Your task to perform on an android device: Search for custom wallets on Etsy. Image 0: 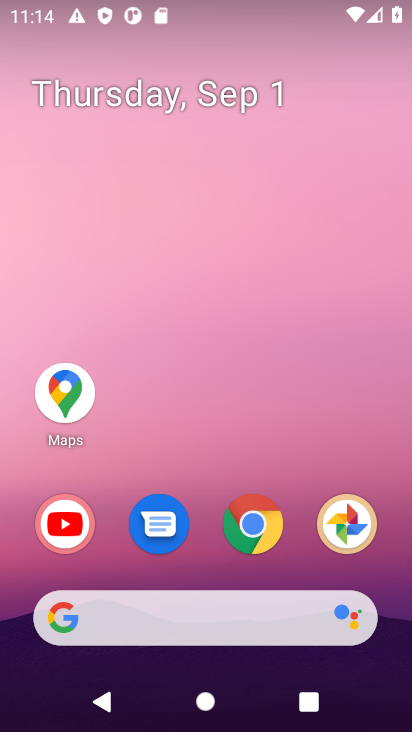
Step 0: click (232, 530)
Your task to perform on an android device: Search for custom wallets on Etsy. Image 1: 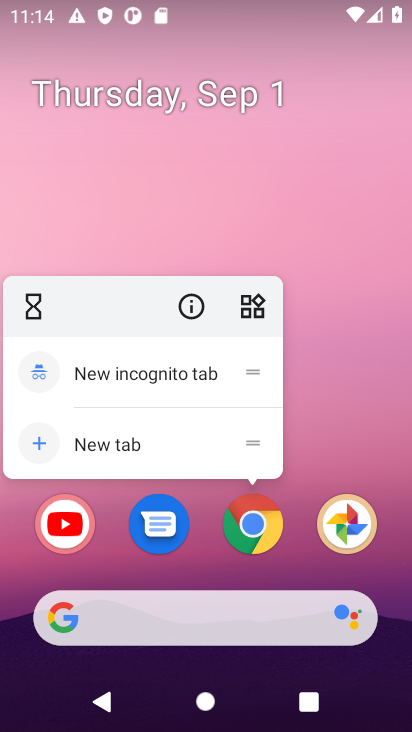
Step 1: click (147, 443)
Your task to perform on an android device: Search for custom wallets on Etsy. Image 2: 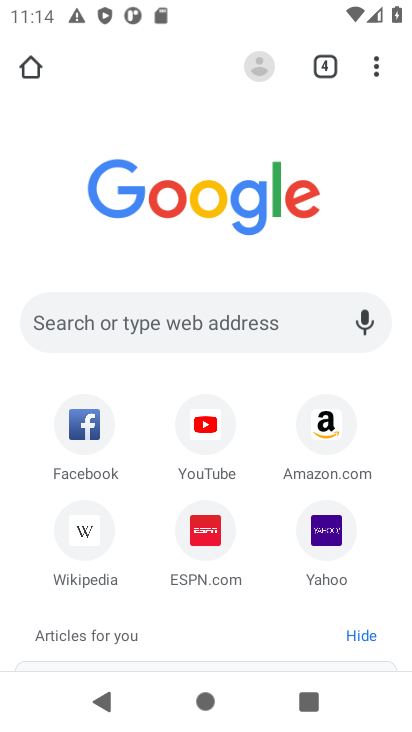
Step 2: click (162, 313)
Your task to perform on an android device: Search for custom wallets on Etsy. Image 3: 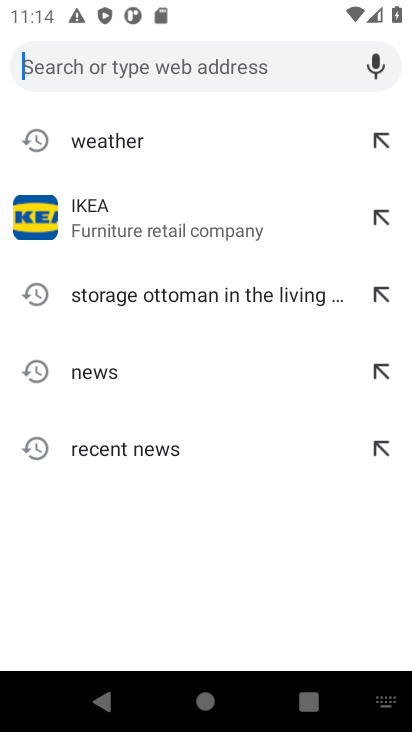
Step 3: type "etsy"
Your task to perform on an android device: Search for custom wallets on Etsy. Image 4: 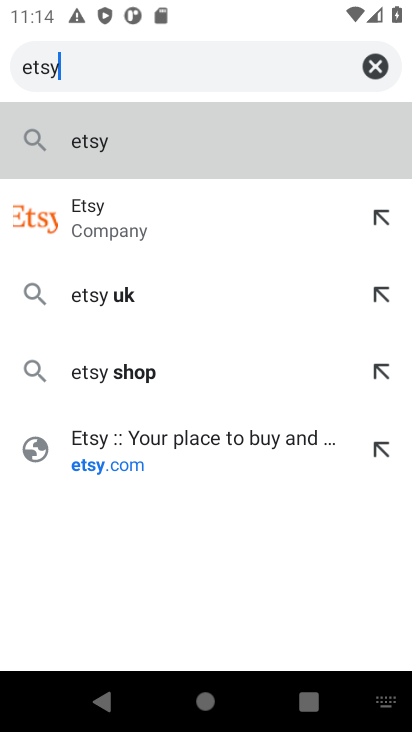
Step 4: click (124, 458)
Your task to perform on an android device: Search for custom wallets on Etsy. Image 5: 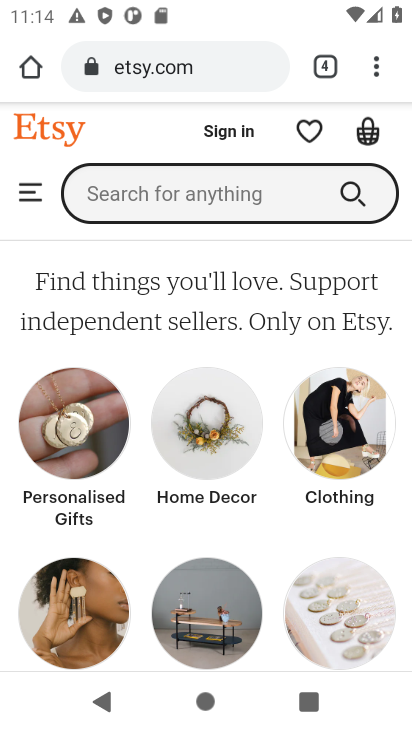
Step 5: click (135, 193)
Your task to perform on an android device: Search for custom wallets on Etsy. Image 6: 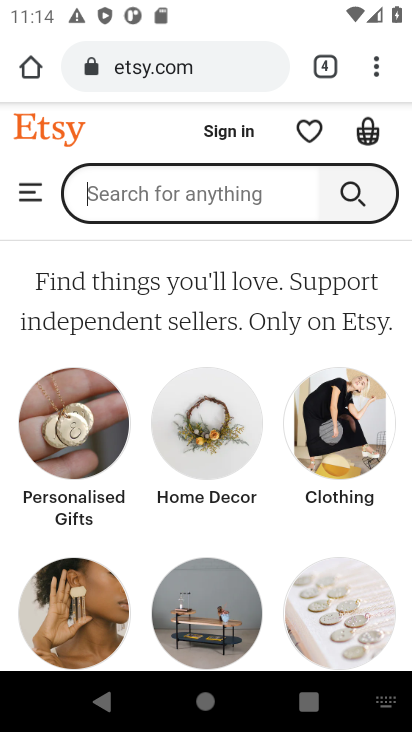
Step 6: type "custom wallets"
Your task to perform on an android device: Search for custom wallets on Etsy. Image 7: 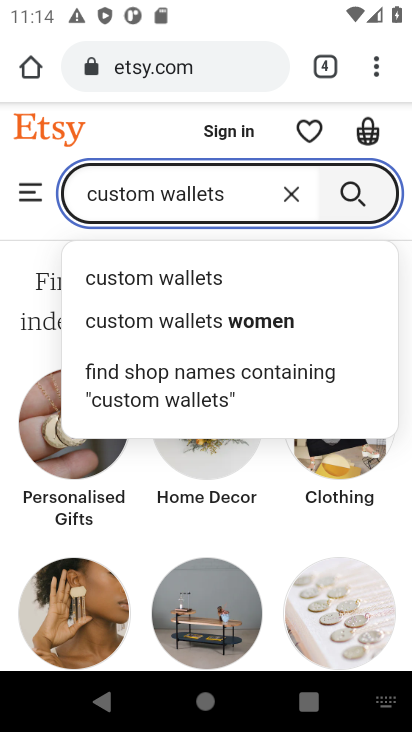
Step 7: click (194, 275)
Your task to perform on an android device: Search for custom wallets on Etsy. Image 8: 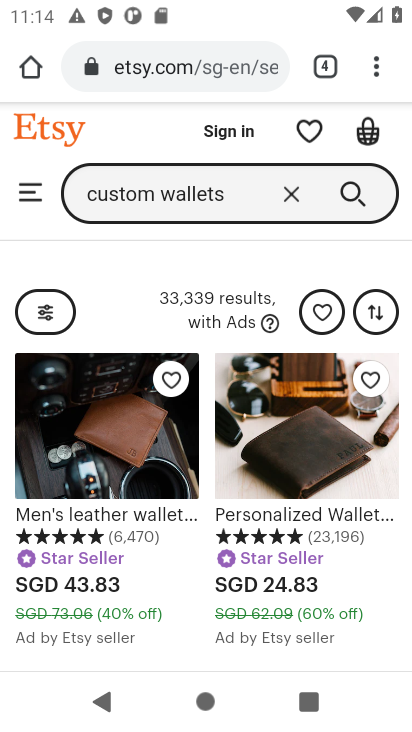
Step 8: task complete